Your task to perform on an android device: open a new tab in the chrome app Image 0: 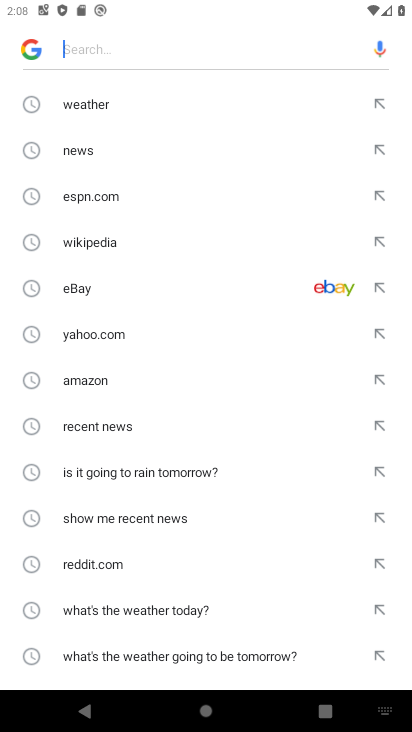
Step 0: press home button
Your task to perform on an android device: open a new tab in the chrome app Image 1: 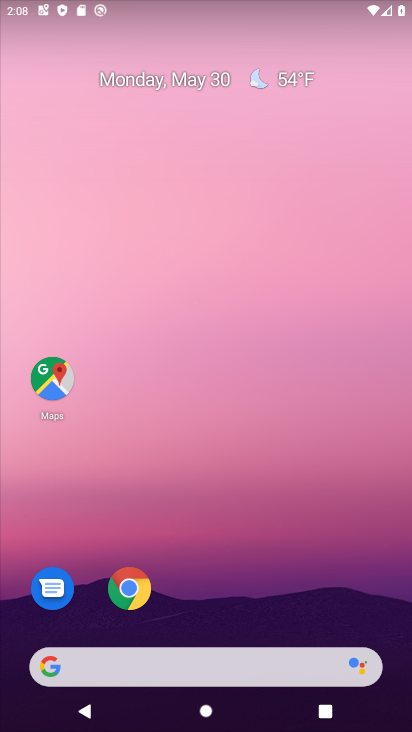
Step 1: click (133, 590)
Your task to perform on an android device: open a new tab in the chrome app Image 2: 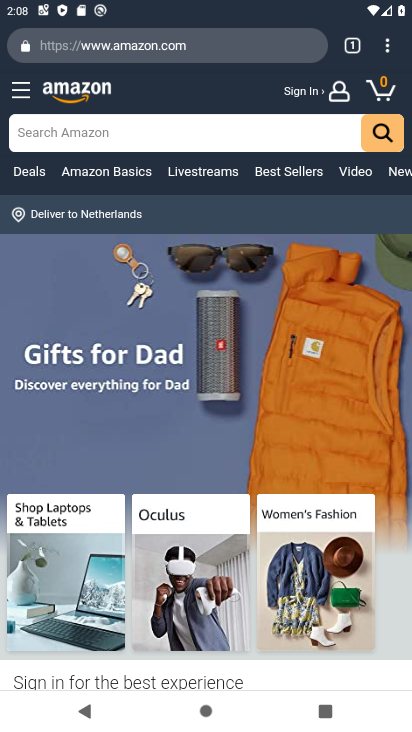
Step 2: click (351, 51)
Your task to perform on an android device: open a new tab in the chrome app Image 3: 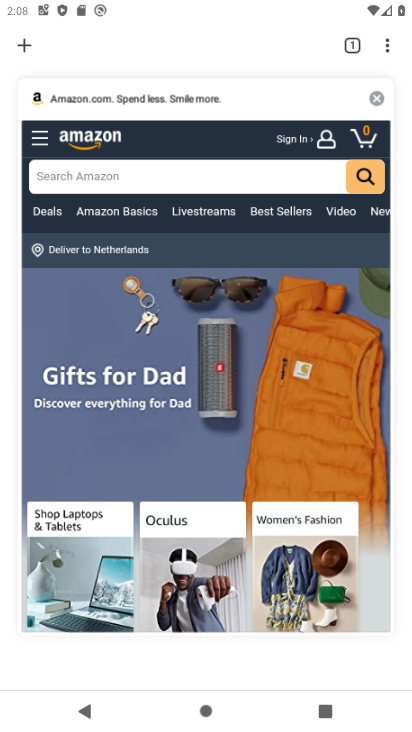
Step 3: click (25, 44)
Your task to perform on an android device: open a new tab in the chrome app Image 4: 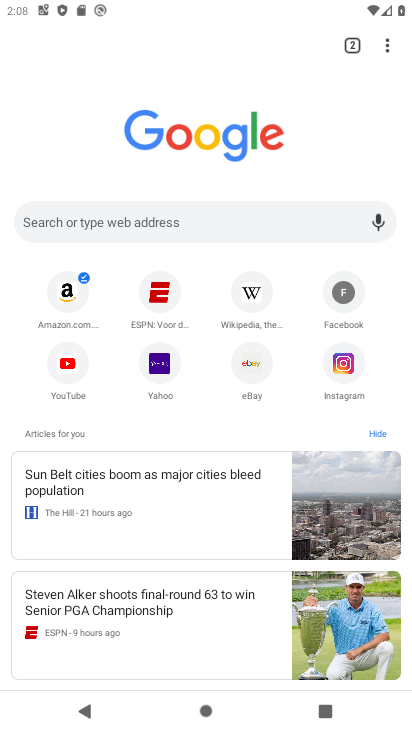
Step 4: task complete